Your task to perform on an android device: Search for the most popular books on Goodreads Image 0: 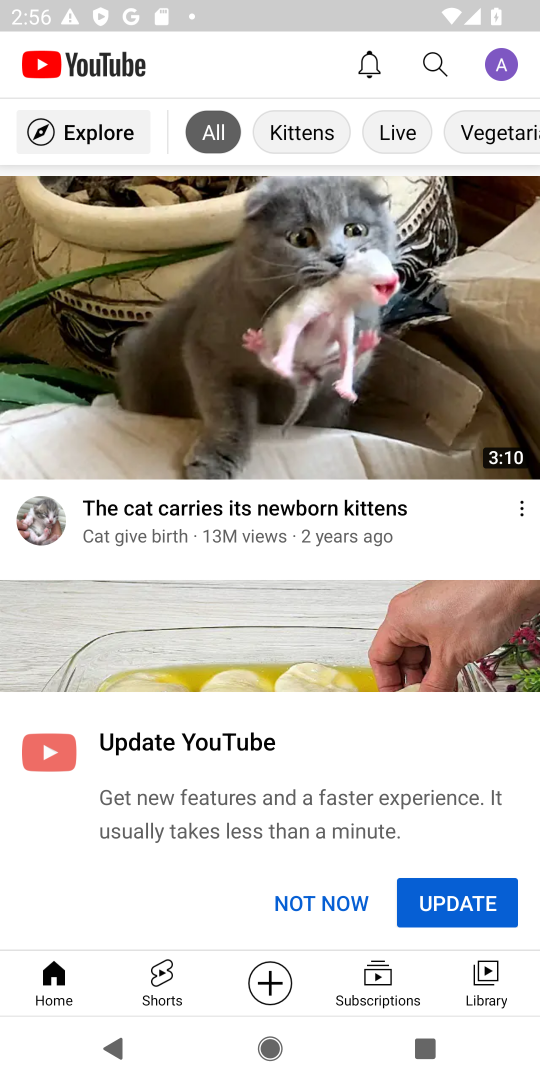
Step 0: press home button
Your task to perform on an android device: Search for the most popular books on Goodreads Image 1: 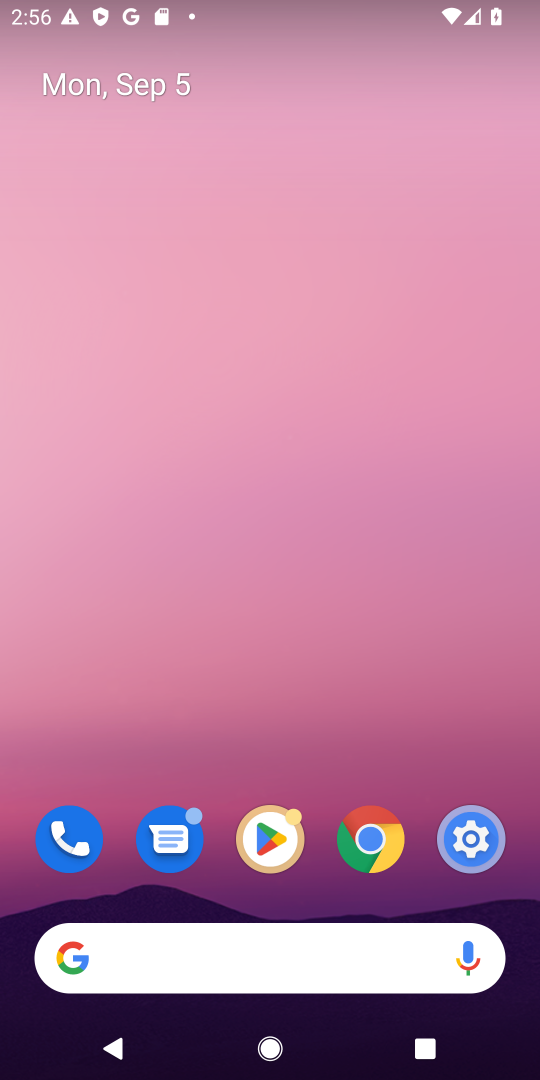
Step 1: click (387, 963)
Your task to perform on an android device: Search for the most popular books on Goodreads Image 2: 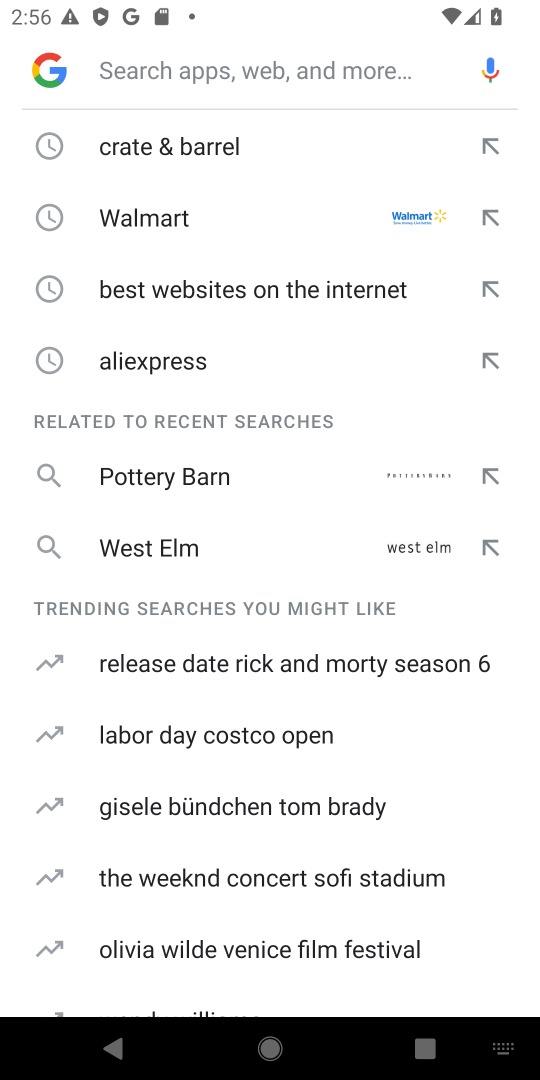
Step 2: type "goodreads"
Your task to perform on an android device: Search for the most popular books on Goodreads Image 3: 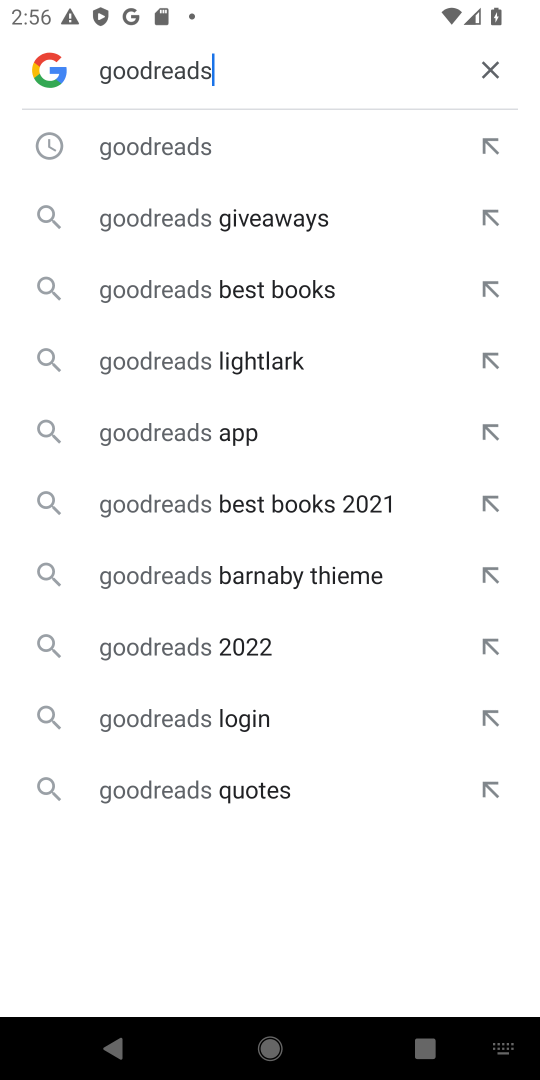
Step 3: press enter
Your task to perform on an android device: Search for the most popular books on Goodreads Image 4: 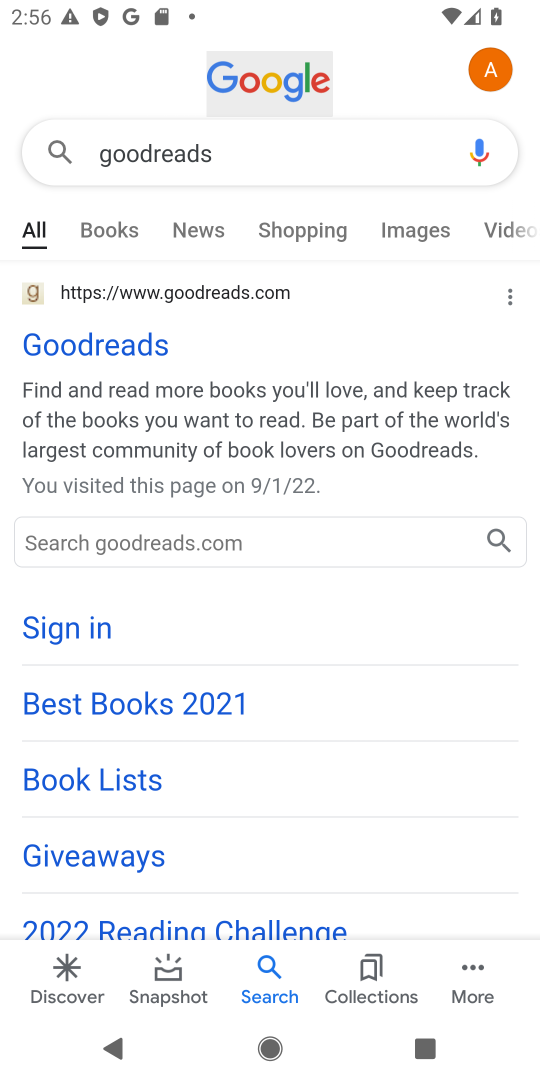
Step 4: click (92, 335)
Your task to perform on an android device: Search for the most popular books on Goodreads Image 5: 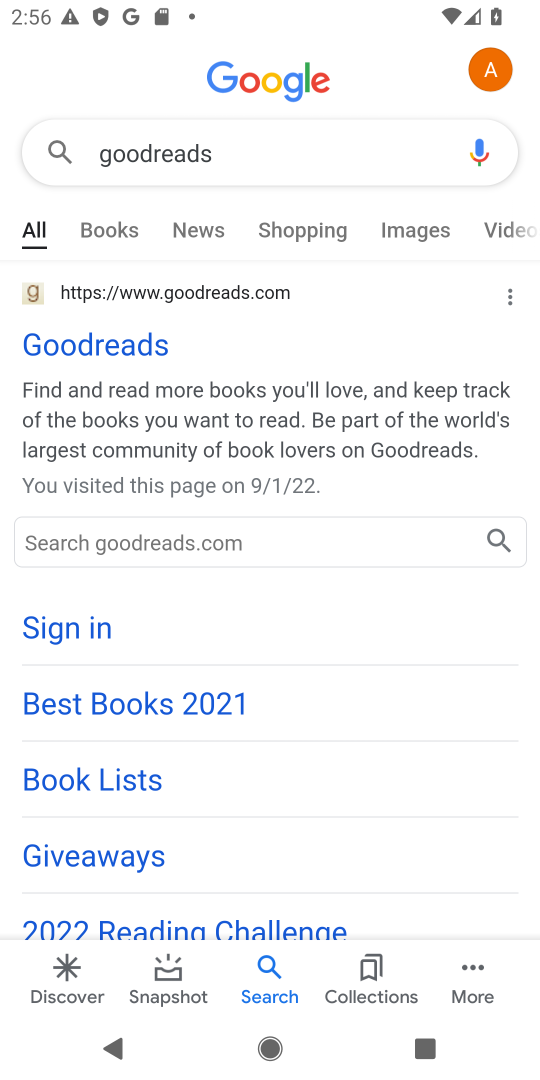
Step 5: click (92, 335)
Your task to perform on an android device: Search for the most popular books on Goodreads Image 6: 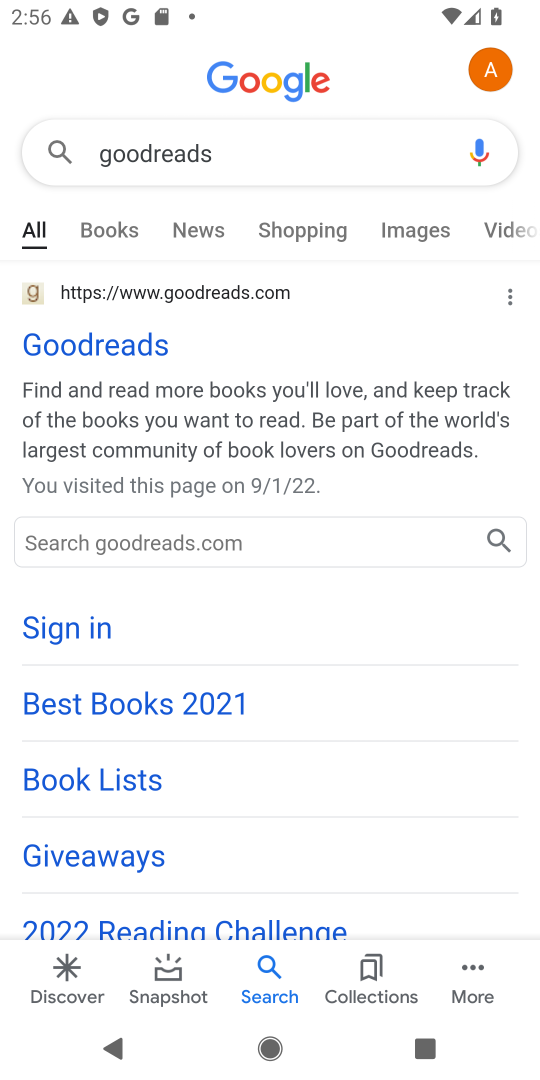
Step 6: click (136, 340)
Your task to perform on an android device: Search for the most popular books on Goodreads Image 7: 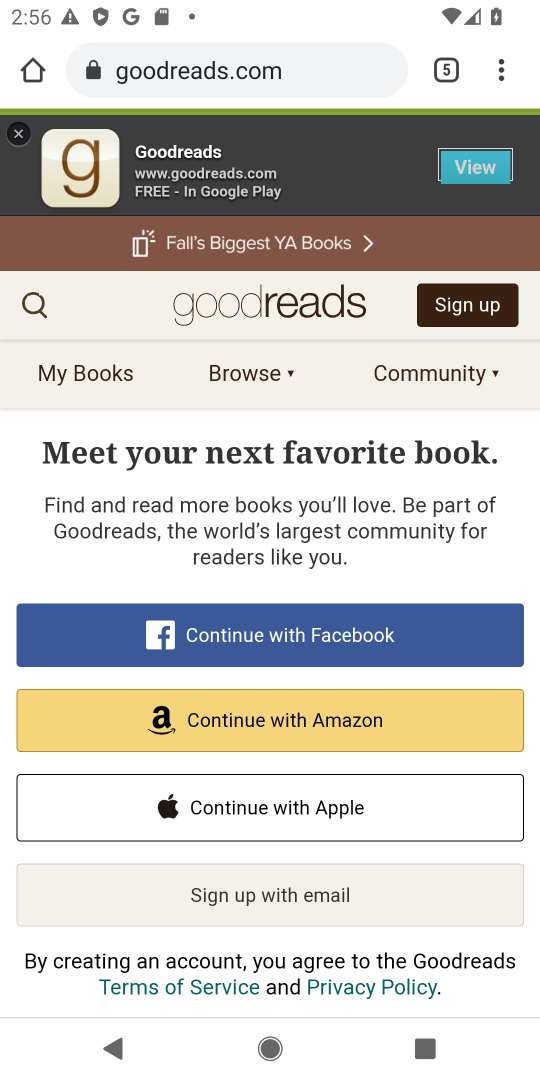
Step 7: click (25, 293)
Your task to perform on an android device: Search for the most popular books on Goodreads Image 8: 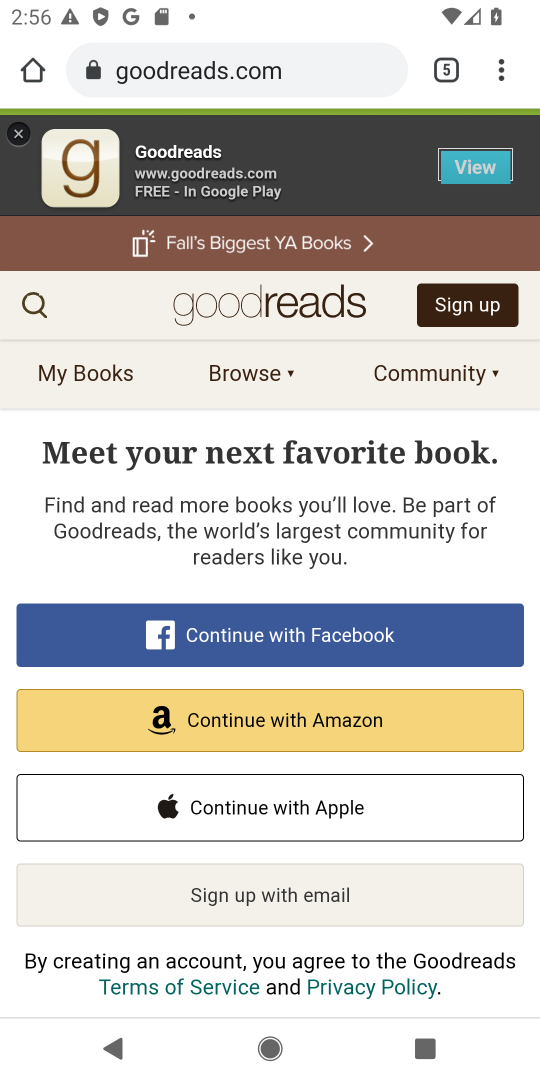
Step 8: click (34, 297)
Your task to perform on an android device: Search for the most popular books on Goodreads Image 9: 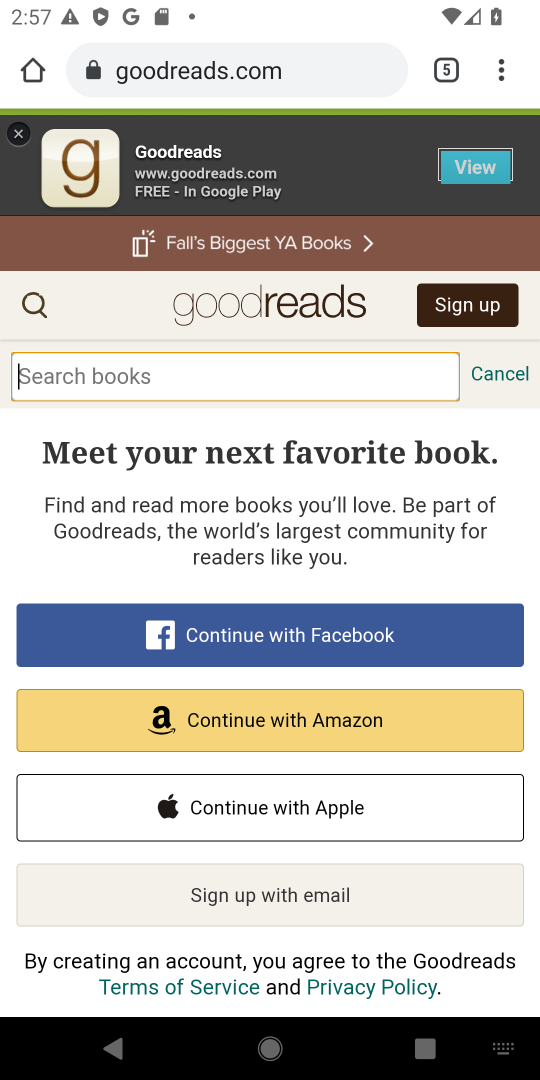
Step 9: click (25, 308)
Your task to perform on an android device: Search for the most popular books on Goodreads Image 10: 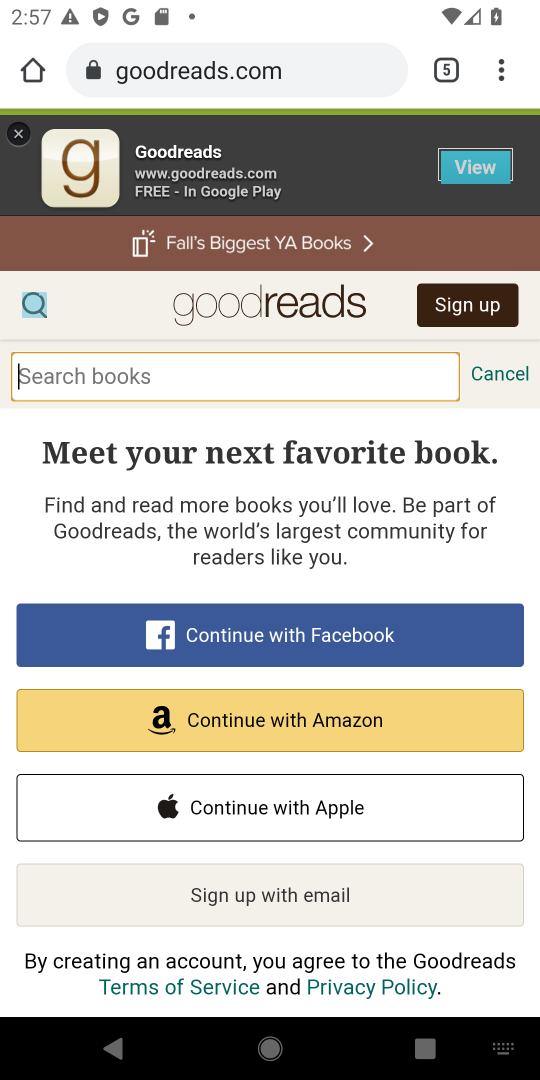
Step 10: click (29, 303)
Your task to perform on an android device: Search for the most popular books on Goodreads Image 11: 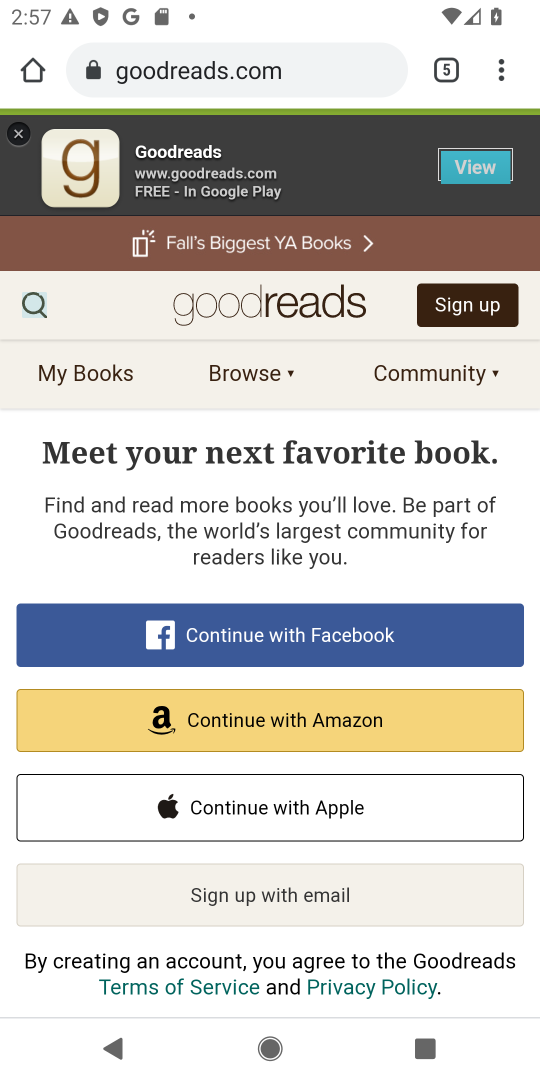
Step 11: click (30, 307)
Your task to perform on an android device: Search for the most popular books on Goodreads Image 12: 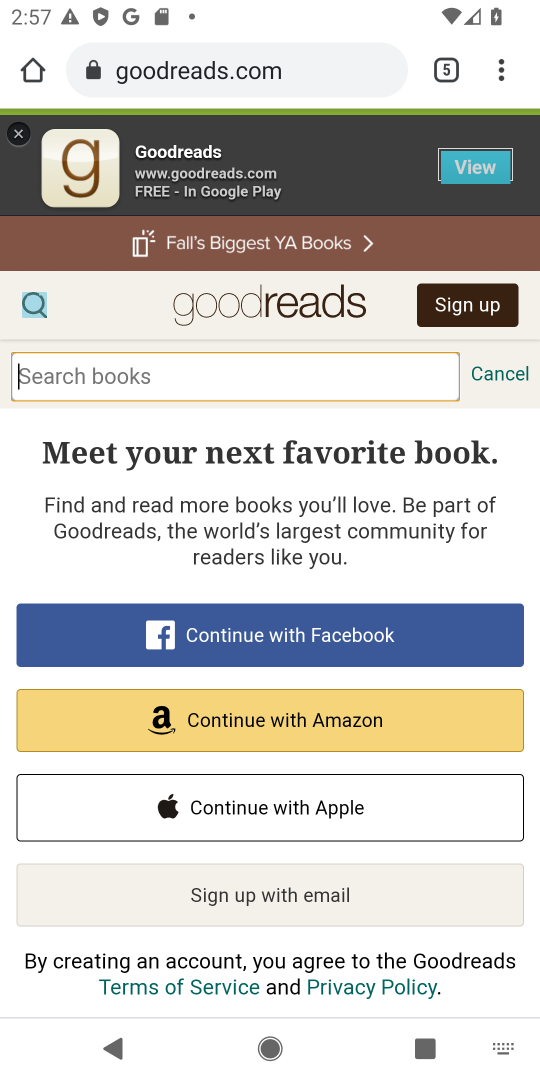
Step 12: click (30, 308)
Your task to perform on an android device: Search for the most popular books on Goodreads Image 13: 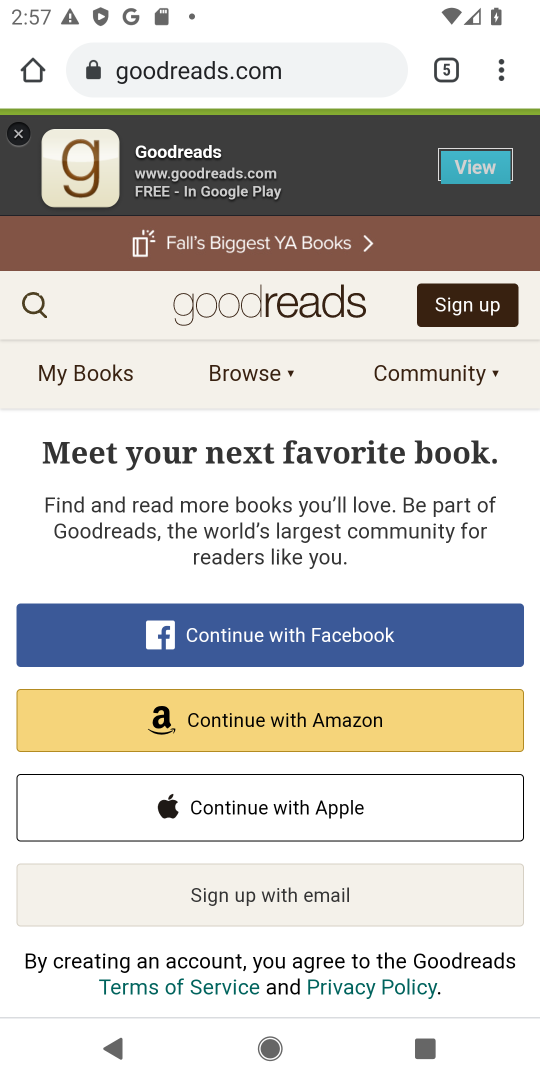
Step 13: click (36, 302)
Your task to perform on an android device: Search for the most popular books on Goodreads Image 14: 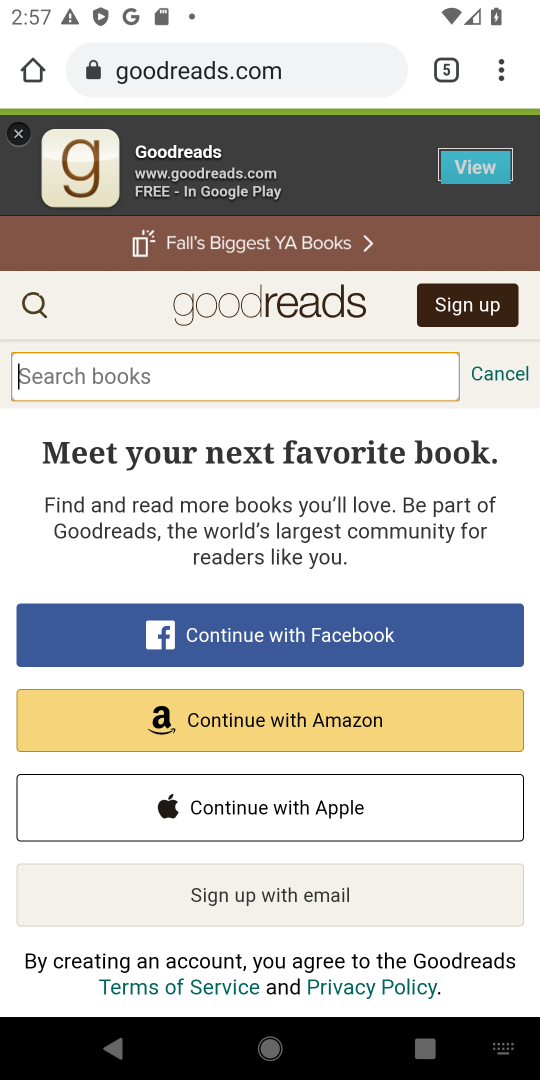
Step 14: click (49, 372)
Your task to perform on an android device: Search for the most popular books on Goodreads Image 15: 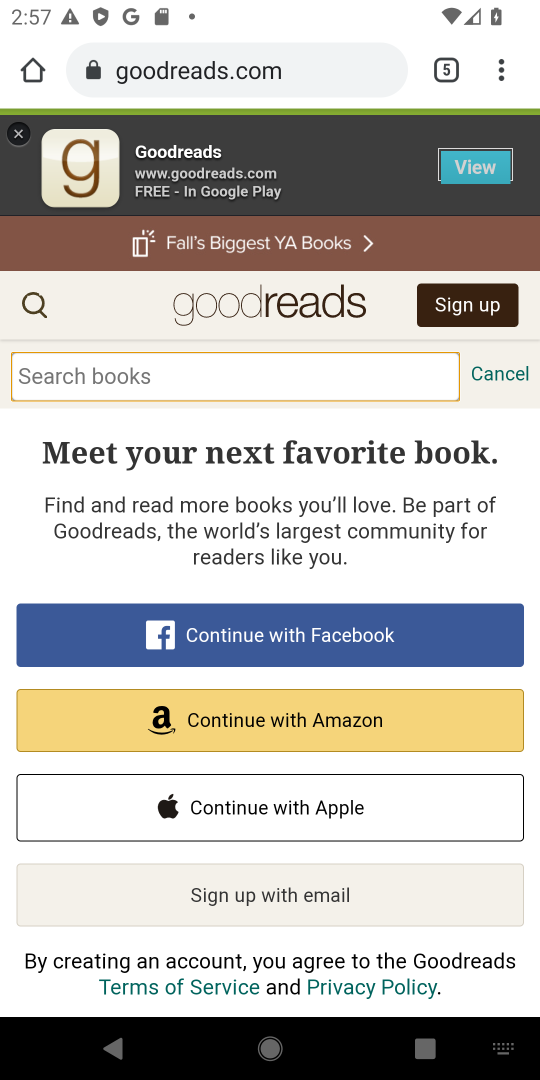
Step 15: type "books"
Your task to perform on an android device: Search for the most popular books on Goodreads Image 16: 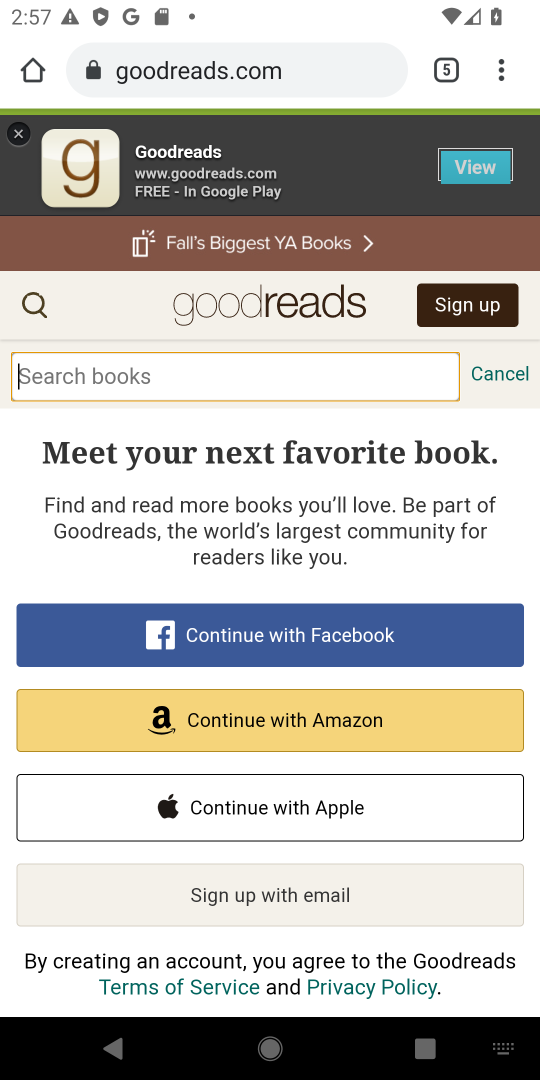
Step 16: type ""
Your task to perform on an android device: Search for the most popular books on Goodreads Image 17: 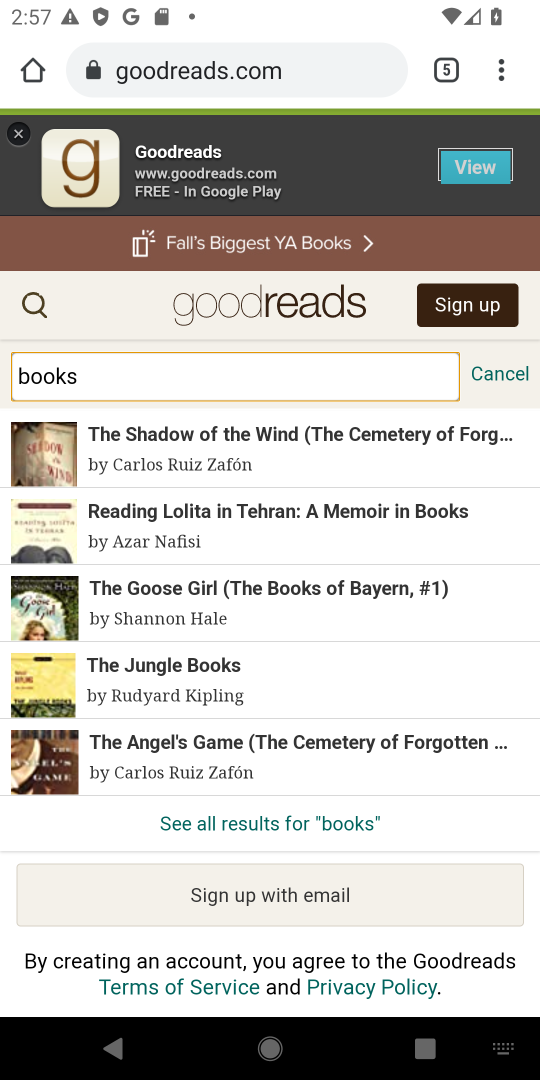
Step 17: drag from (469, 710) to (481, 499)
Your task to perform on an android device: Search for the most popular books on Goodreads Image 18: 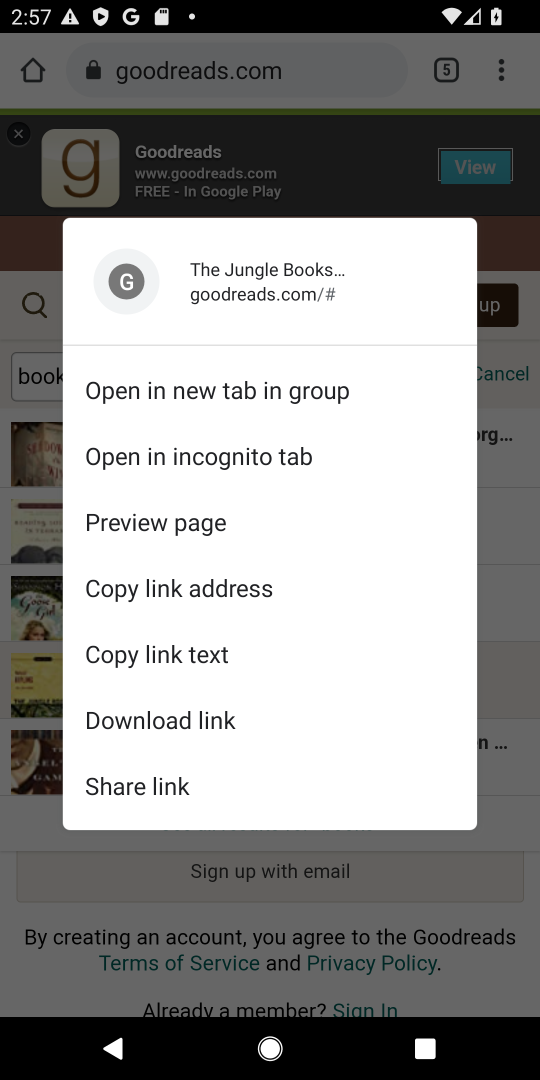
Step 18: click (429, 84)
Your task to perform on an android device: Search for the most popular books on Goodreads Image 19: 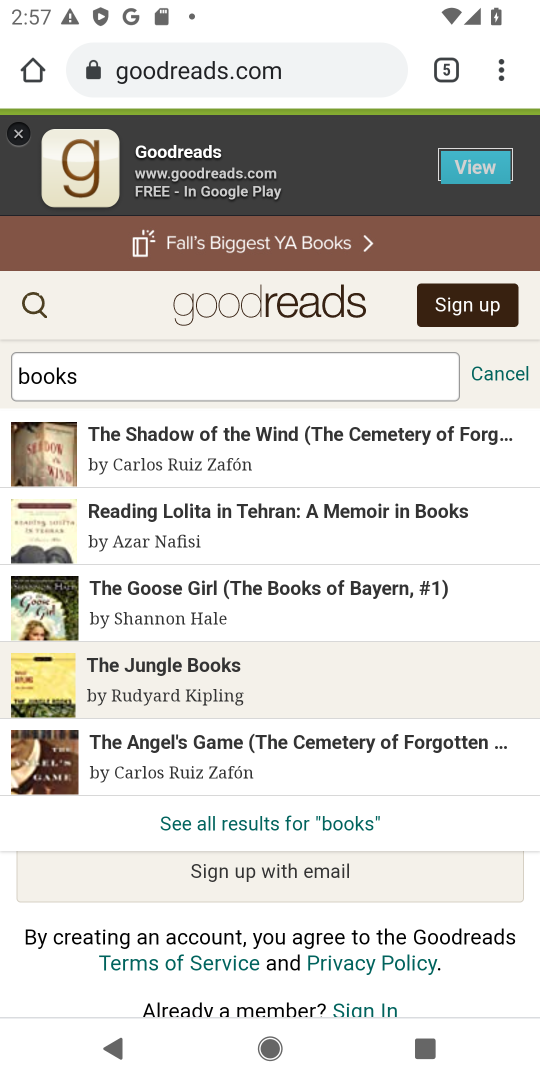
Step 19: drag from (100, 321) to (96, 178)
Your task to perform on an android device: Search for the most popular books on Goodreads Image 20: 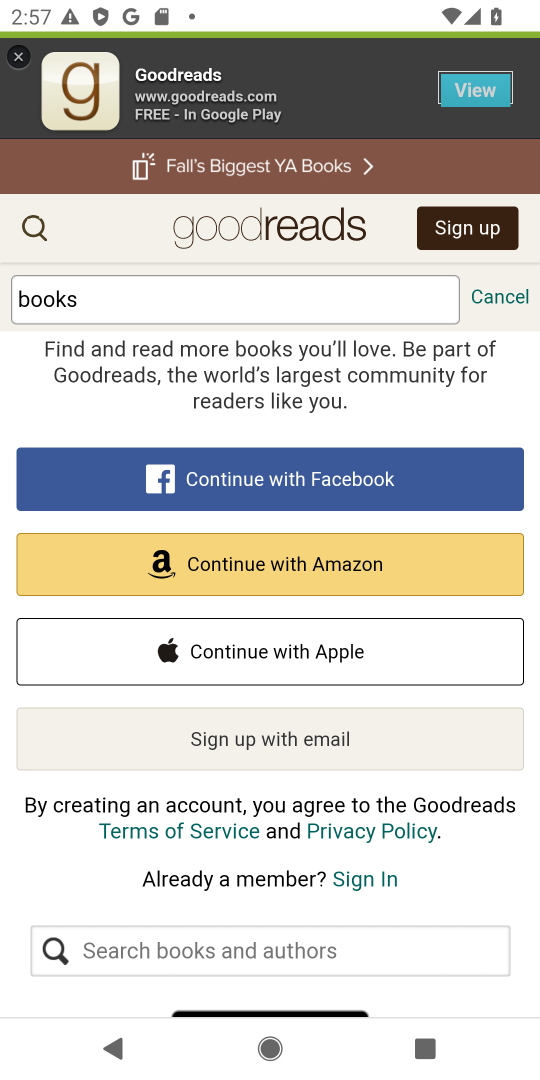
Step 20: press enter
Your task to perform on an android device: Search for the most popular books on Goodreads Image 21: 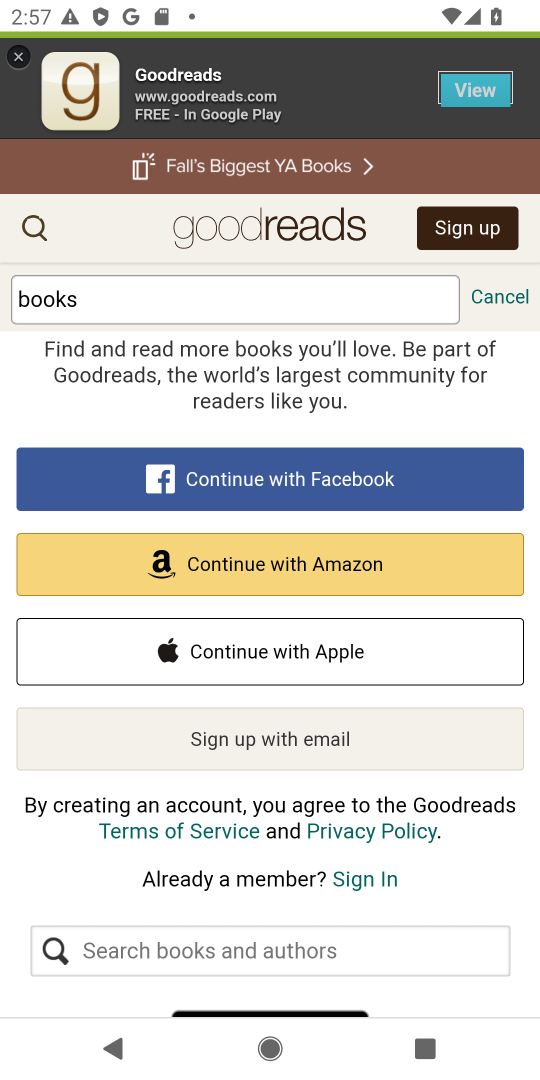
Step 21: click (227, 301)
Your task to perform on an android device: Search for the most popular books on Goodreads Image 22: 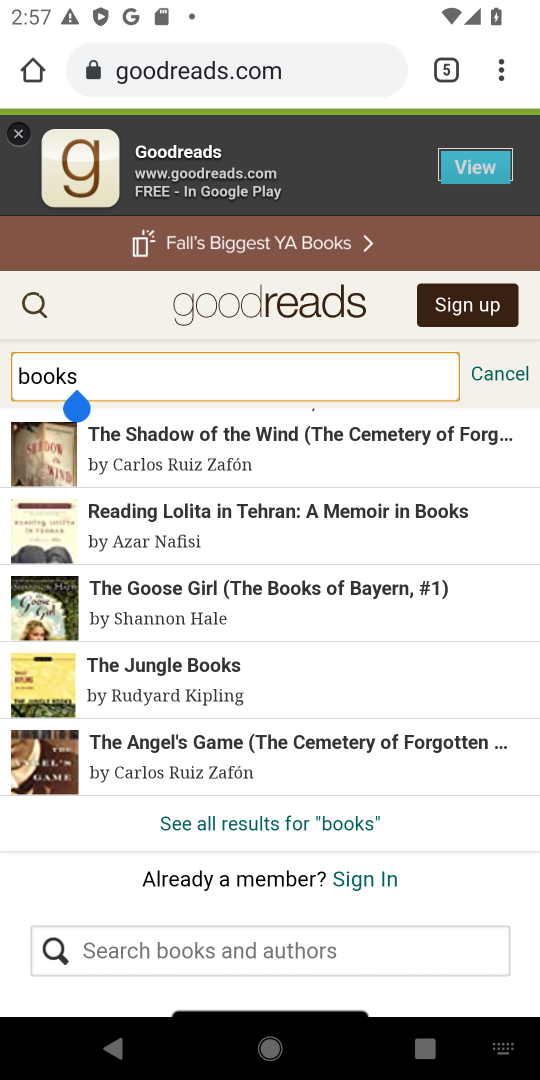
Step 22: press enter
Your task to perform on an android device: Search for the most popular books on Goodreads Image 23: 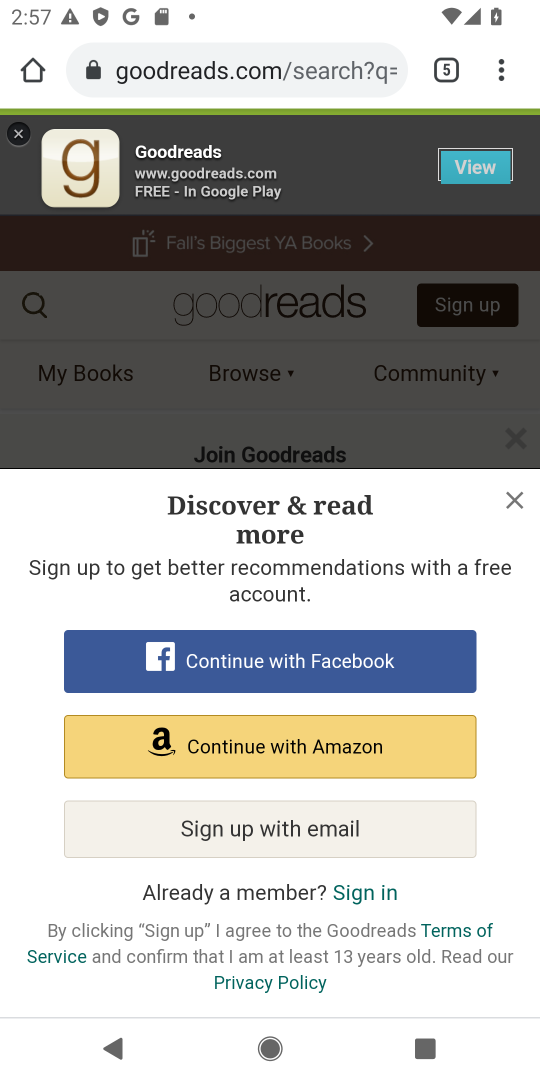
Step 23: click (516, 508)
Your task to perform on an android device: Search for the most popular books on Goodreads Image 24: 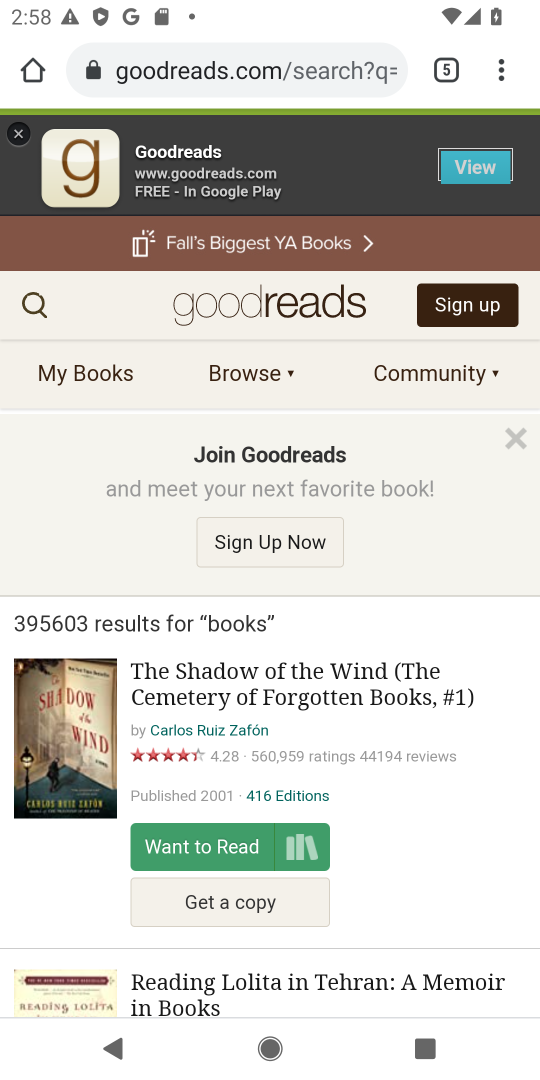
Step 24: click (393, 622)
Your task to perform on an android device: Search for the most popular books on Goodreads Image 25: 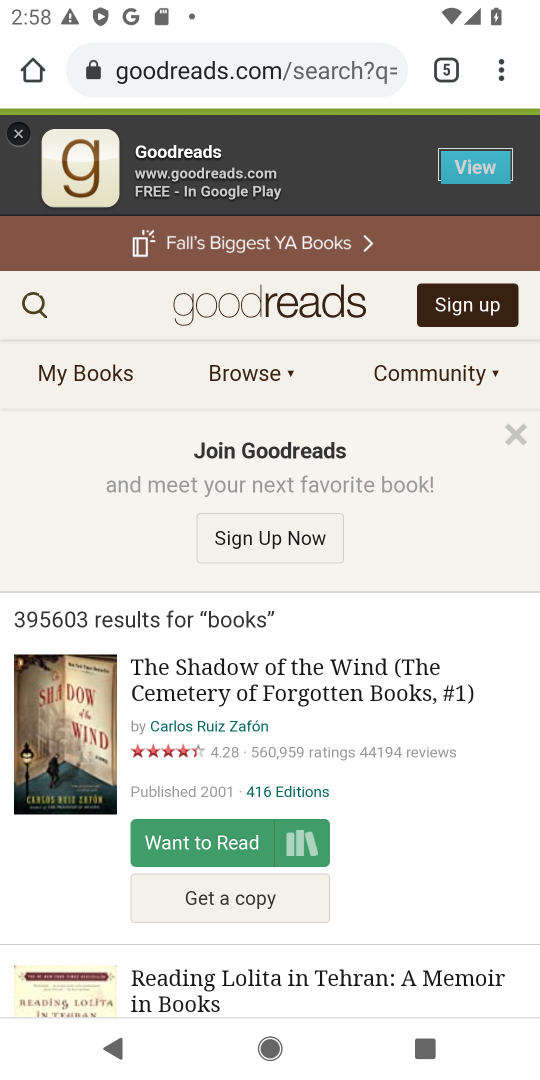
Step 25: click (34, 293)
Your task to perform on an android device: Search for the most popular books on Goodreads Image 26: 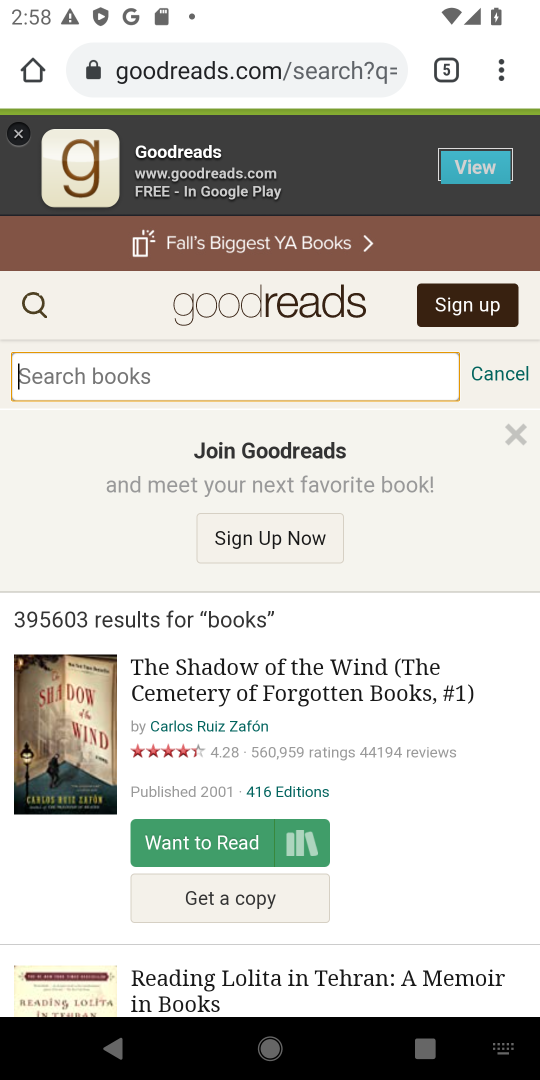
Step 26: type "most popular book"
Your task to perform on an android device: Search for the most popular books on Goodreads Image 27: 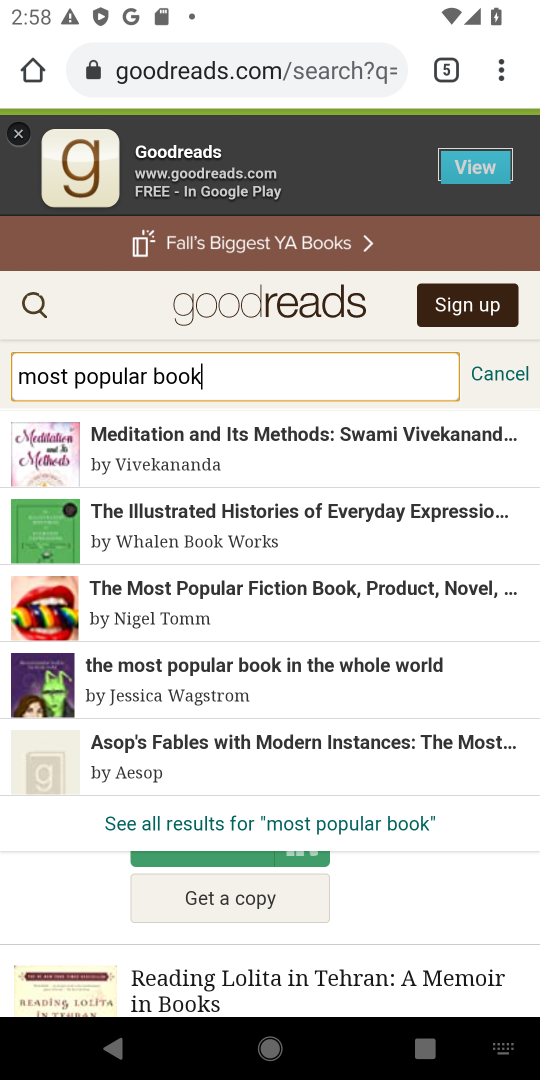
Step 27: drag from (458, 889) to (453, 593)
Your task to perform on an android device: Search for the most popular books on Goodreads Image 28: 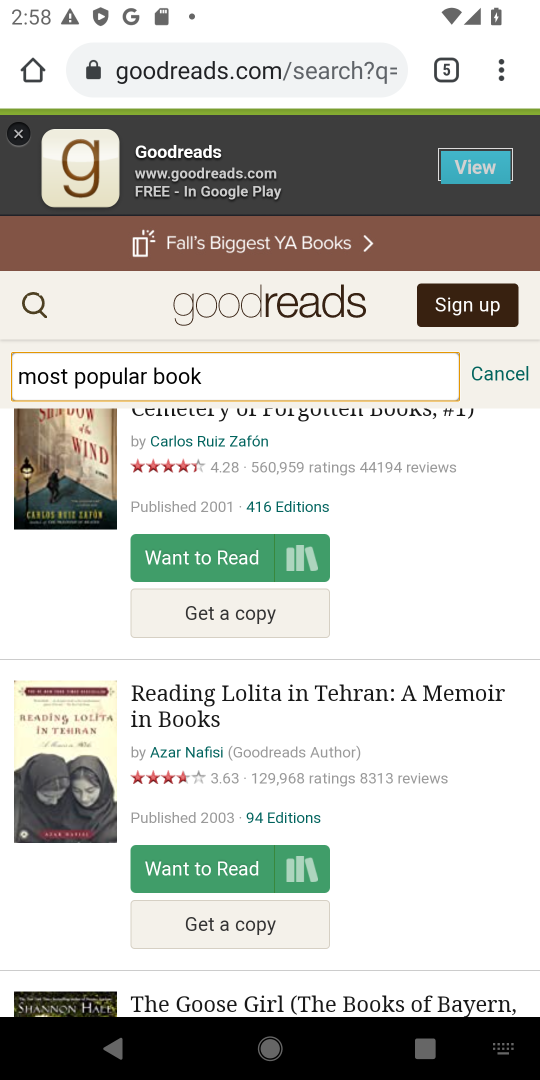
Step 28: press enter
Your task to perform on an android device: Search for the most popular books on Goodreads Image 29: 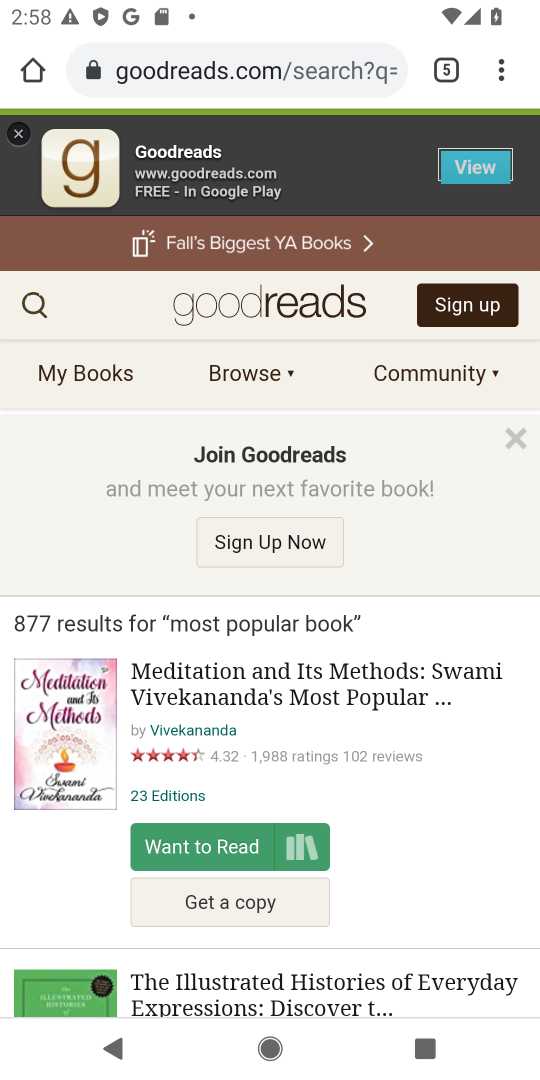
Step 29: task complete